Your task to perform on an android device: Turn off the flashlight Image 0: 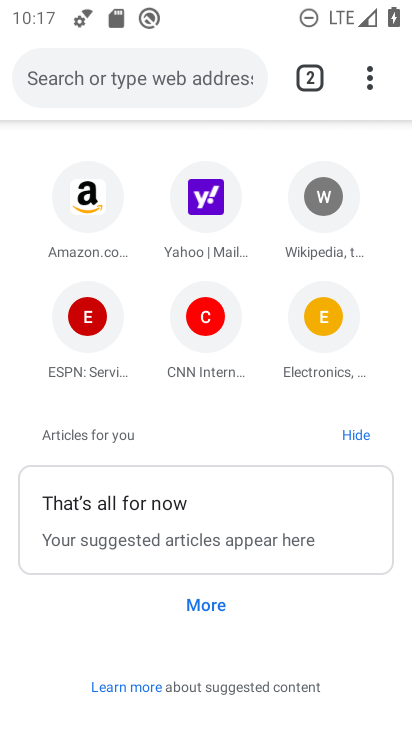
Step 0: press home button
Your task to perform on an android device: Turn off the flashlight Image 1: 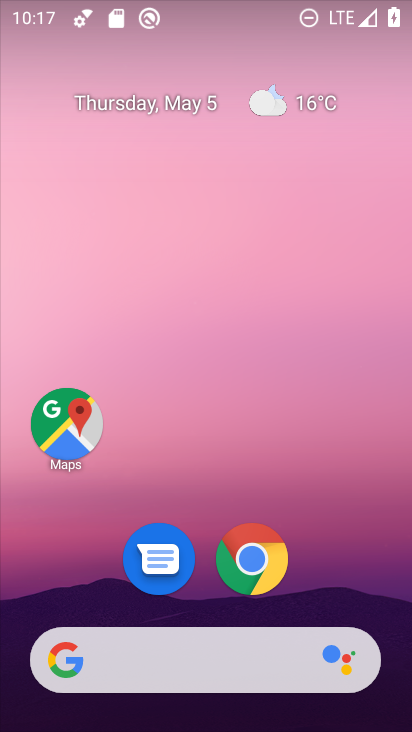
Step 1: drag from (387, 631) to (304, 101)
Your task to perform on an android device: Turn off the flashlight Image 2: 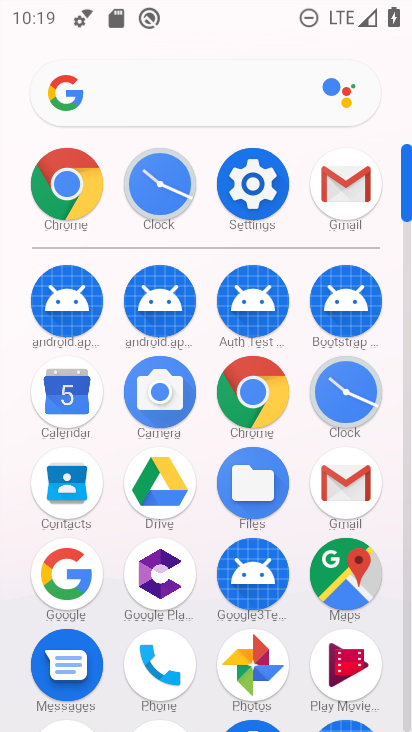
Step 2: click (247, 204)
Your task to perform on an android device: Turn off the flashlight Image 3: 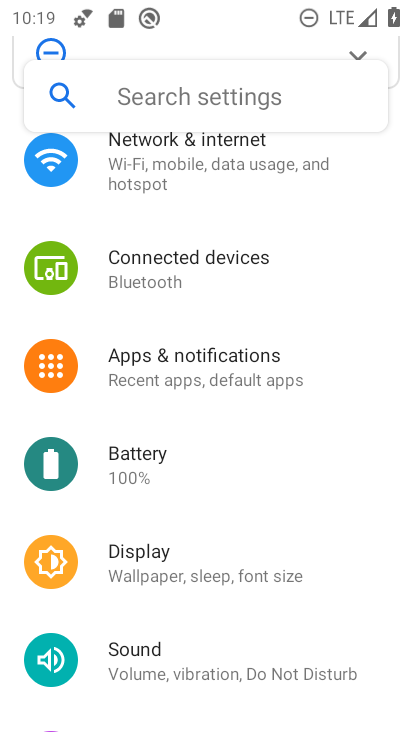
Step 3: task complete